Your task to perform on an android device: Open Chrome and go to settings Image 0: 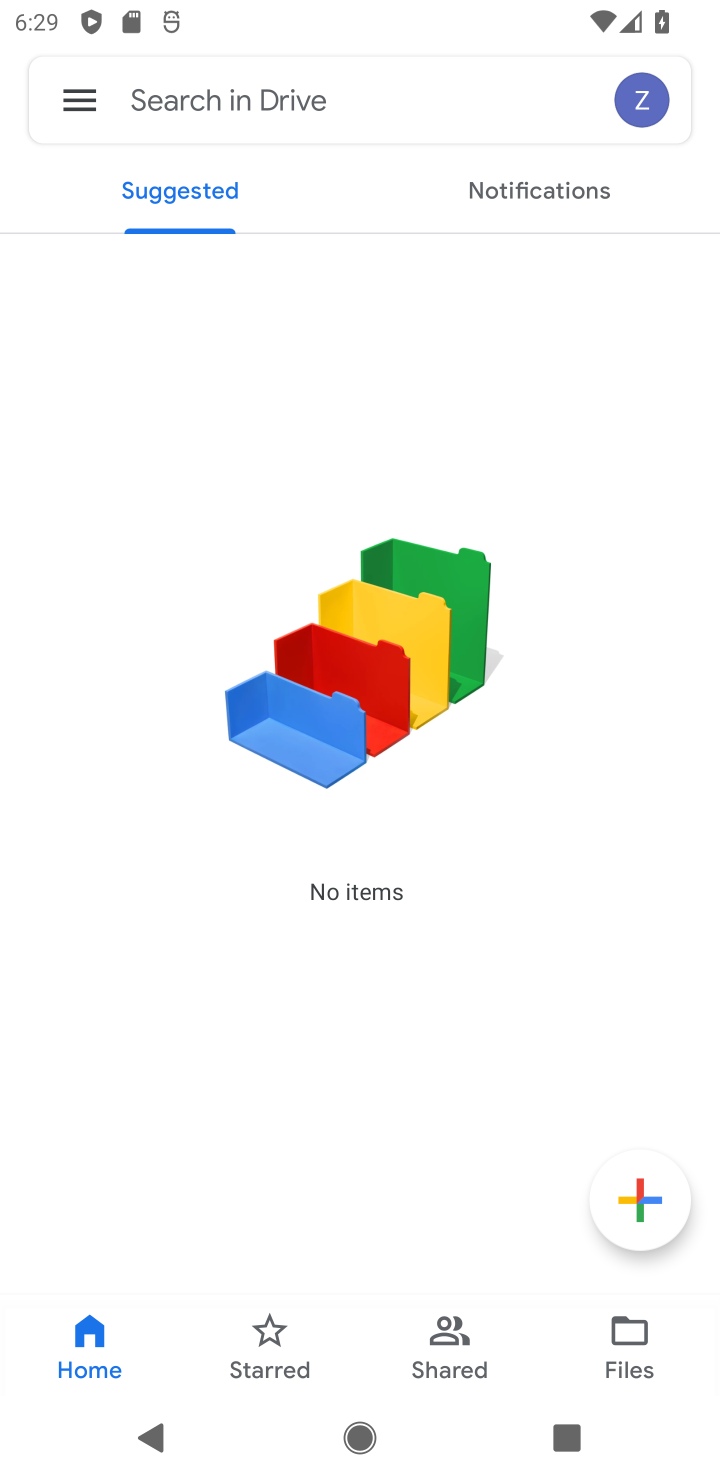
Step 0: press home button
Your task to perform on an android device: Open Chrome and go to settings Image 1: 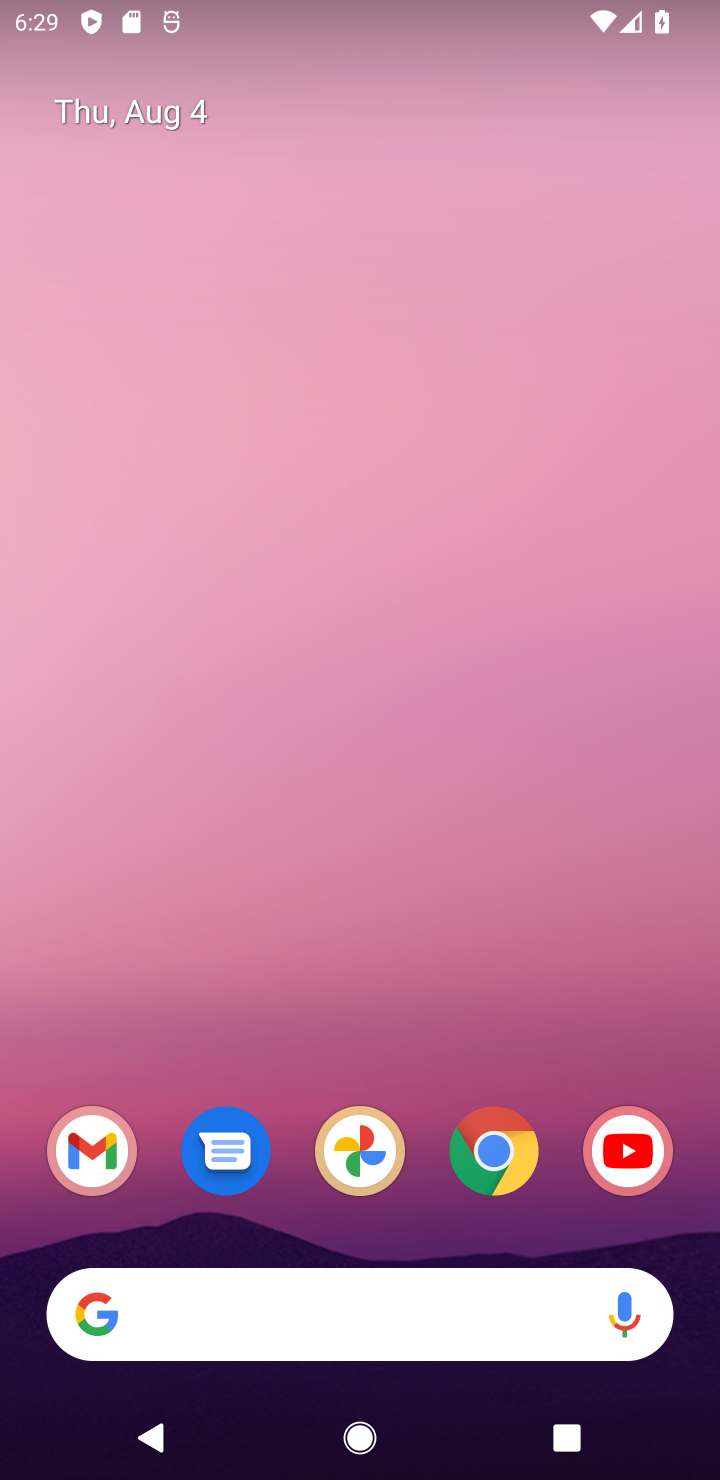
Step 1: click (495, 1159)
Your task to perform on an android device: Open Chrome and go to settings Image 2: 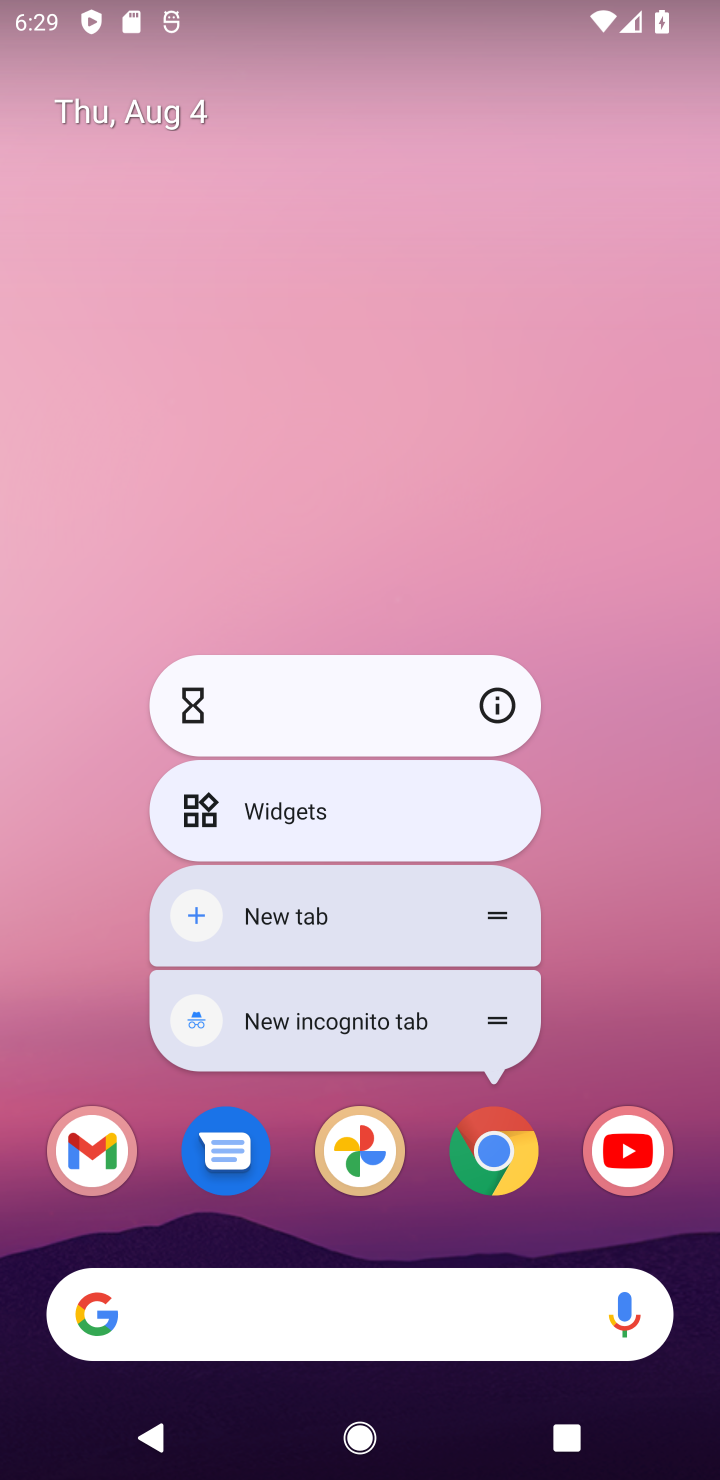
Step 2: click (493, 1161)
Your task to perform on an android device: Open Chrome and go to settings Image 3: 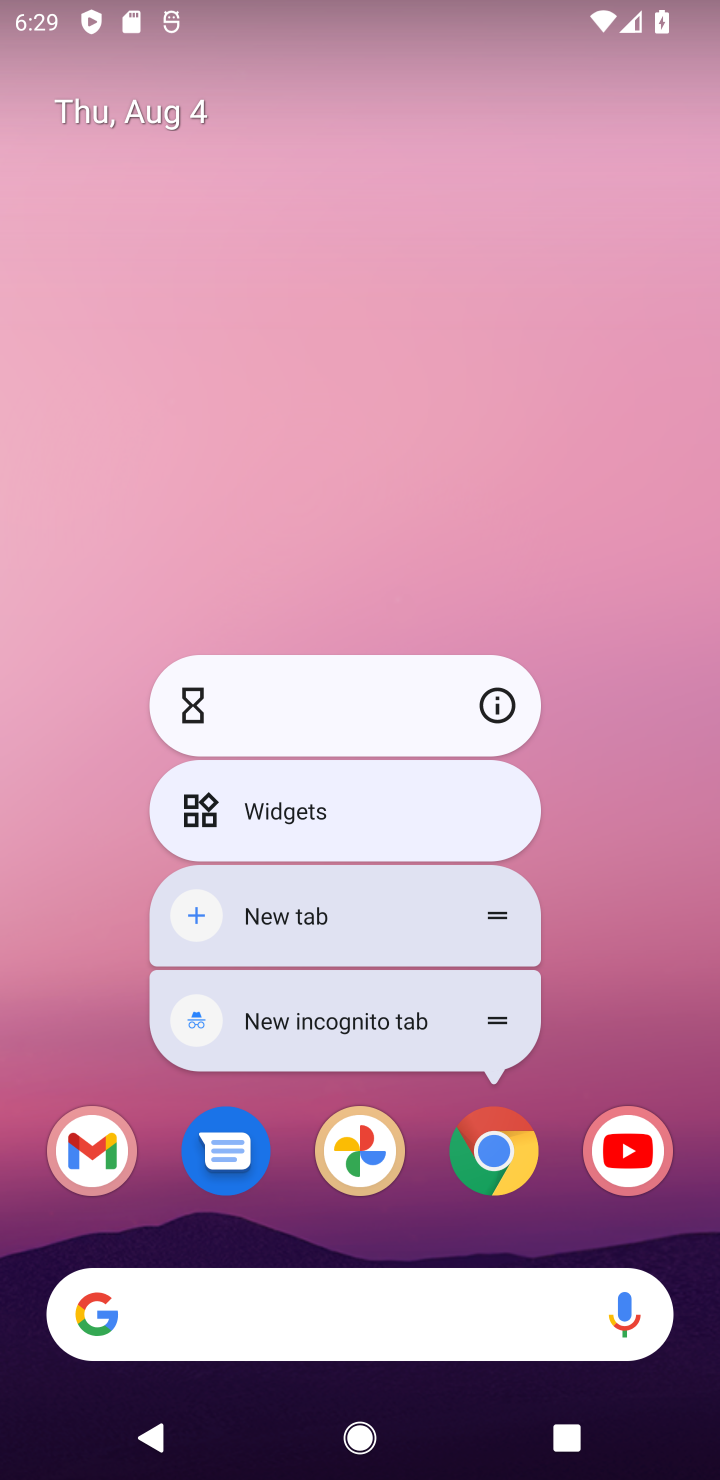
Step 3: click (495, 1155)
Your task to perform on an android device: Open Chrome and go to settings Image 4: 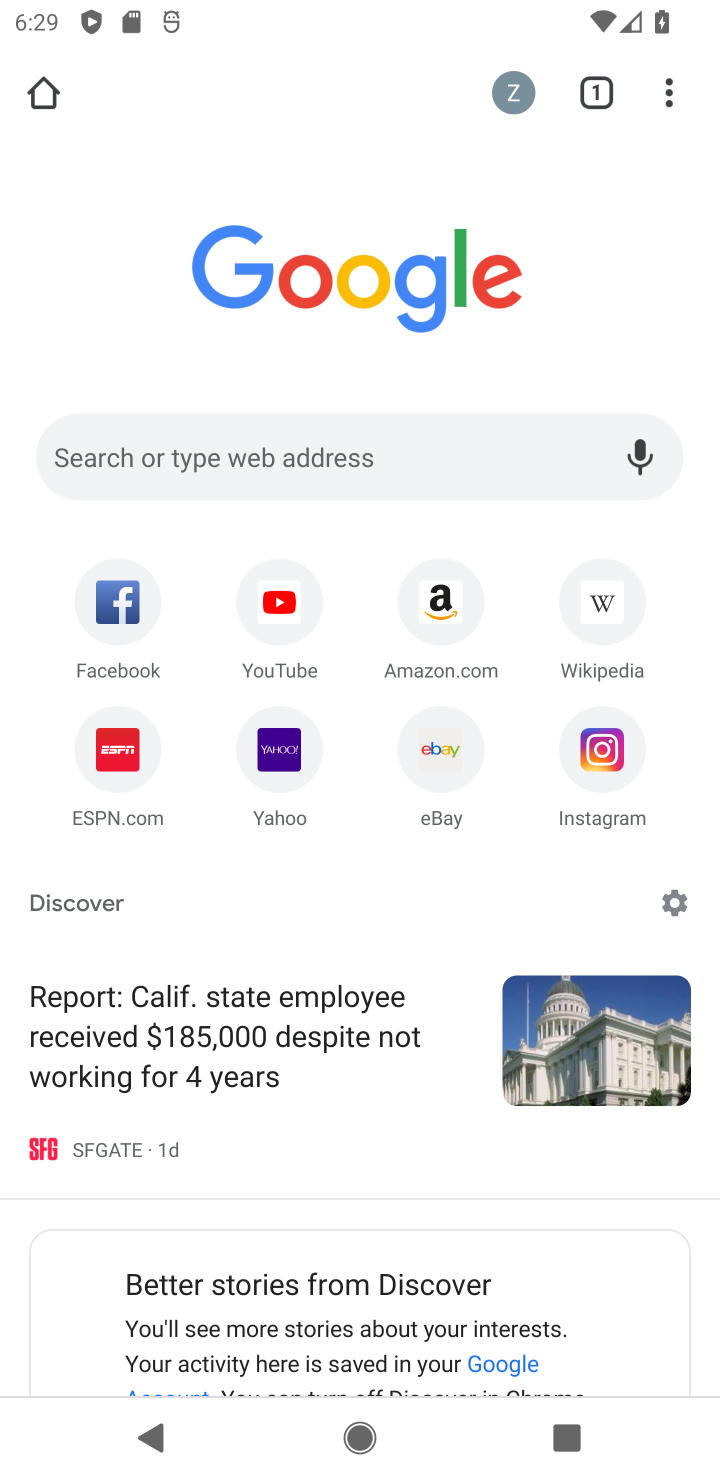
Step 4: click (657, 96)
Your task to perform on an android device: Open Chrome and go to settings Image 5: 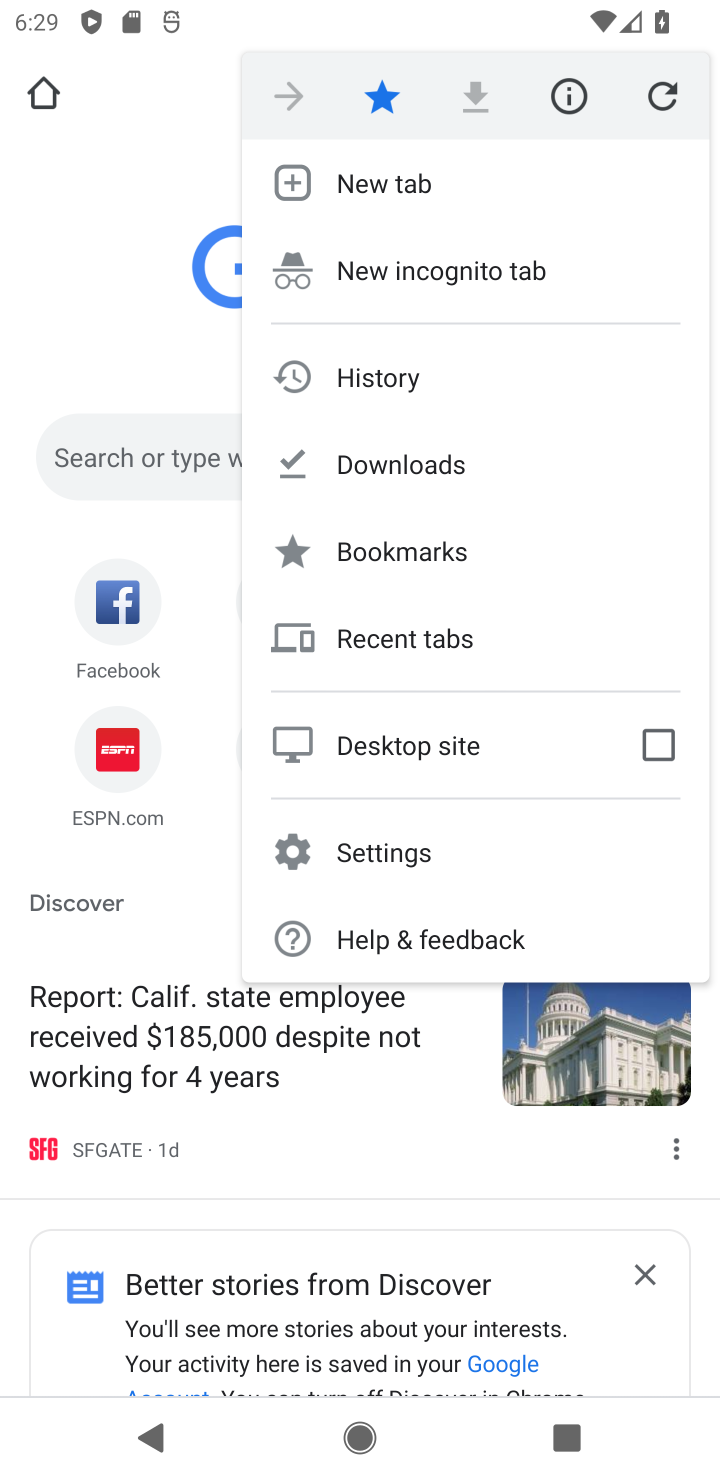
Step 5: click (380, 861)
Your task to perform on an android device: Open Chrome and go to settings Image 6: 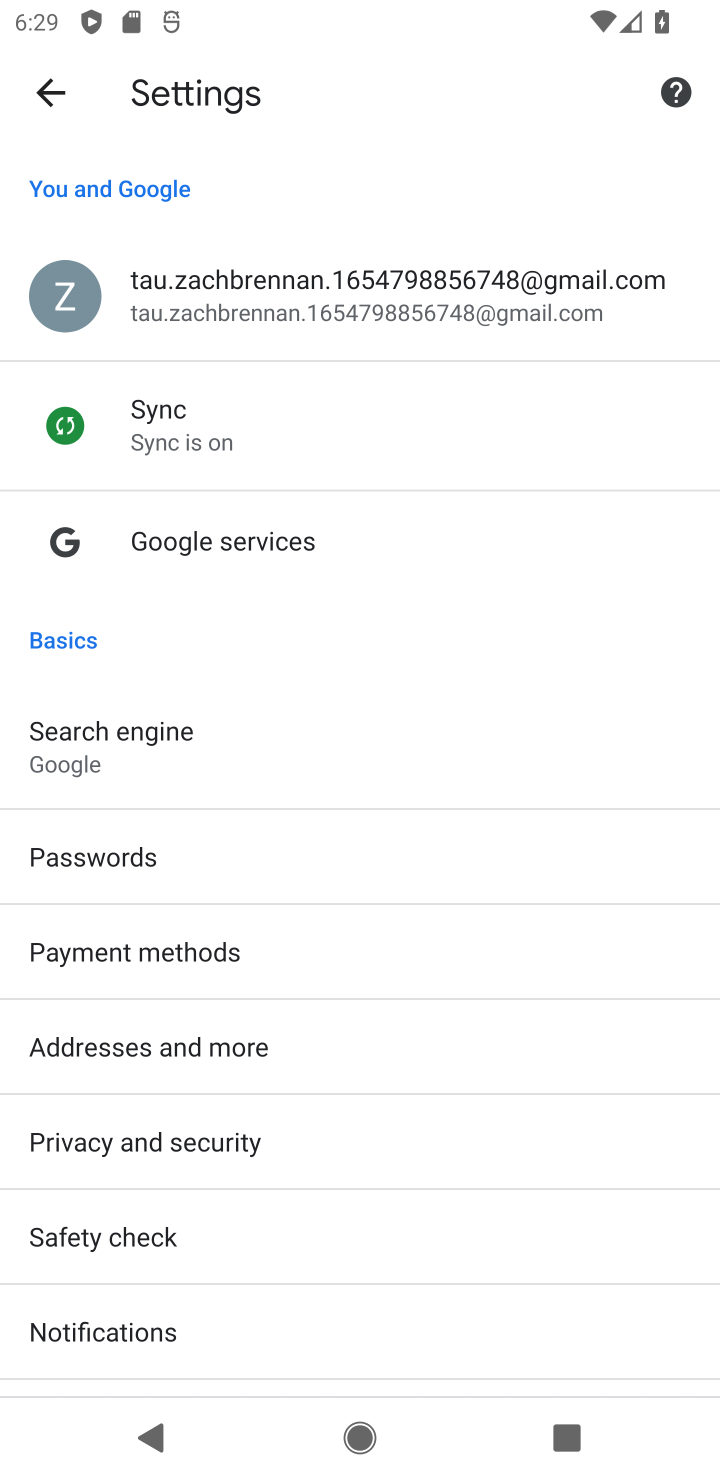
Step 6: task complete